Your task to perform on an android device: Open calendar and show me the fourth week of next month Image 0: 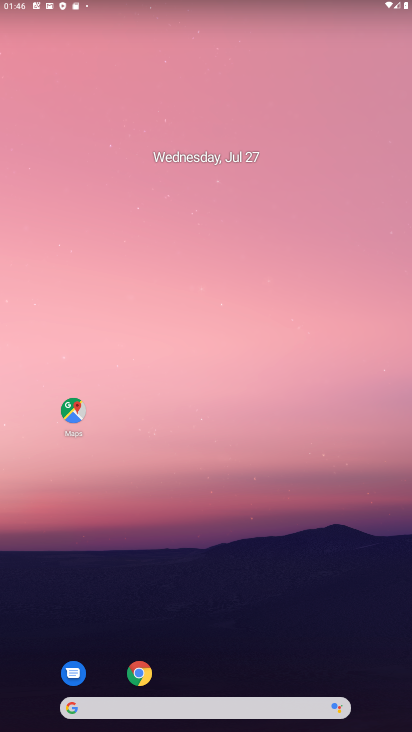
Step 0: drag from (192, 684) to (206, 243)
Your task to perform on an android device: Open calendar and show me the fourth week of next month Image 1: 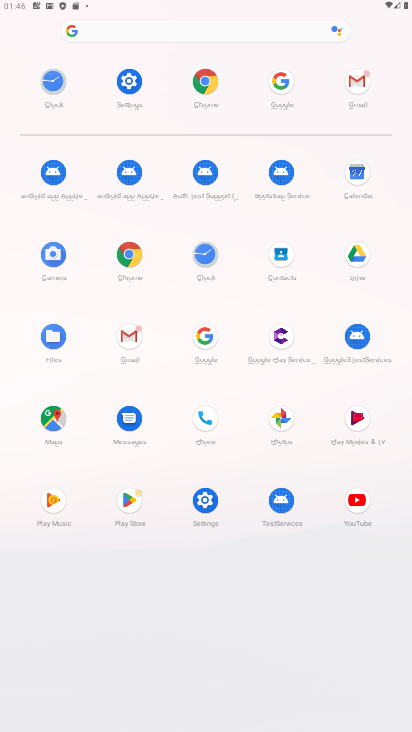
Step 1: click (348, 167)
Your task to perform on an android device: Open calendar and show me the fourth week of next month Image 2: 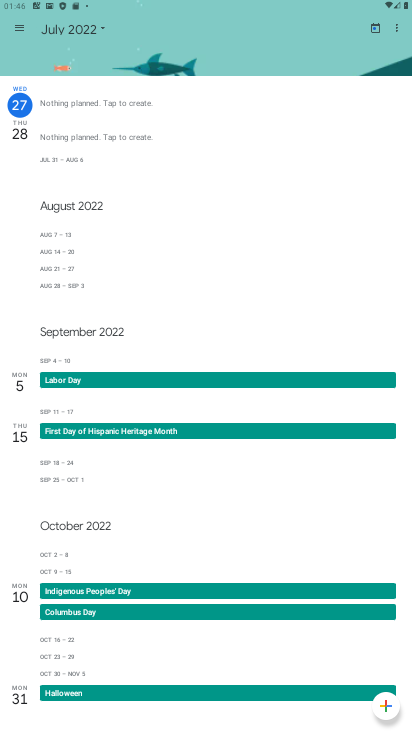
Step 2: click (15, 30)
Your task to perform on an android device: Open calendar and show me the fourth week of next month Image 3: 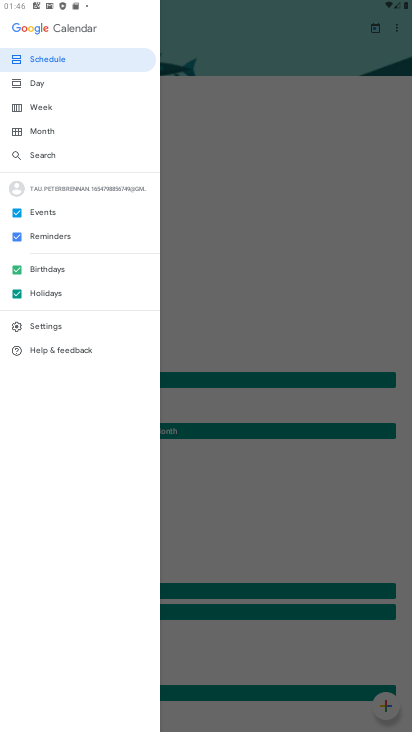
Step 3: click (42, 105)
Your task to perform on an android device: Open calendar and show me the fourth week of next month Image 4: 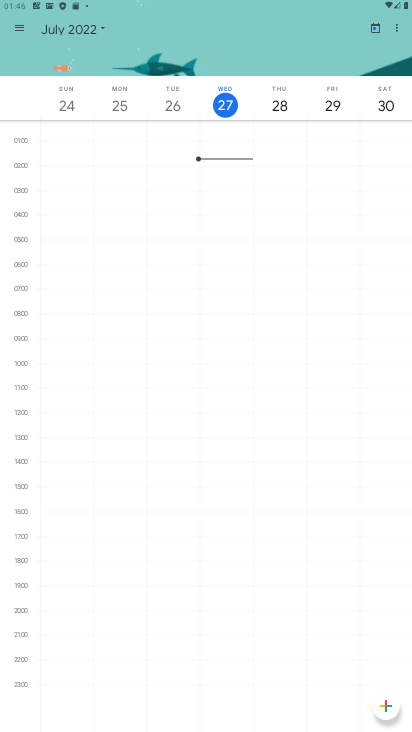
Step 4: task complete